Your task to perform on an android device: Go to Google Image 0: 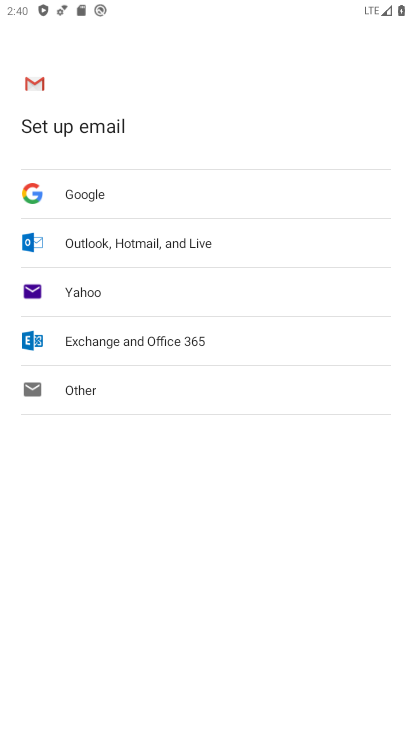
Step 0: press home button
Your task to perform on an android device: Go to Google Image 1: 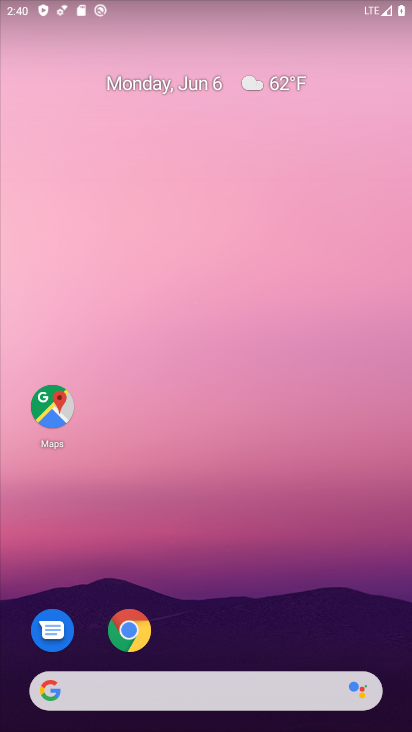
Step 1: drag from (238, 651) to (133, 20)
Your task to perform on an android device: Go to Google Image 2: 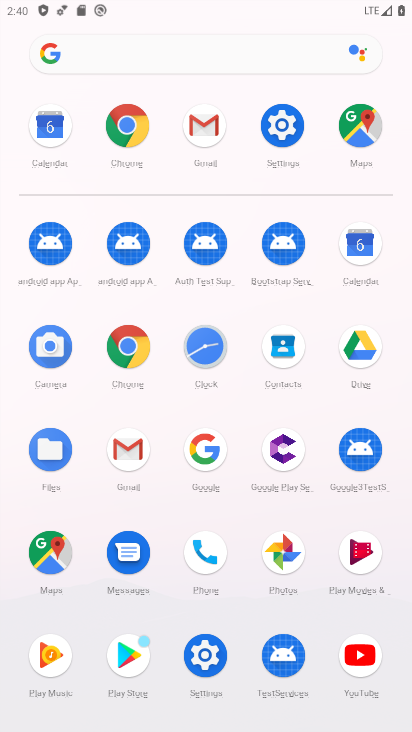
Step 2: click (197, 456)
Your task to perform on an android device: Go to Google Image 3: 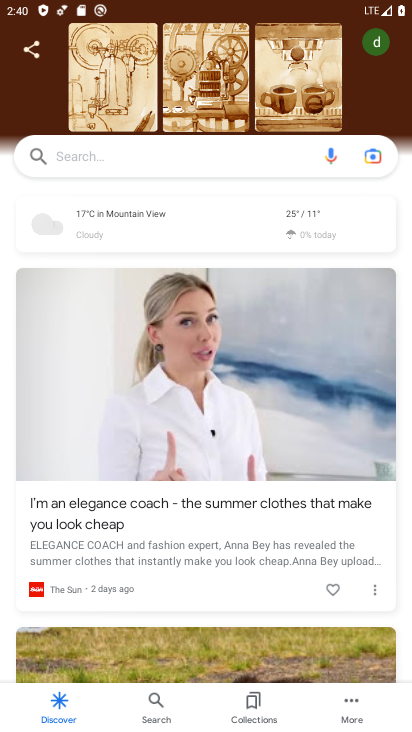
Step 3: task complete